Your task to perform on an android device: add a contact Image 0: 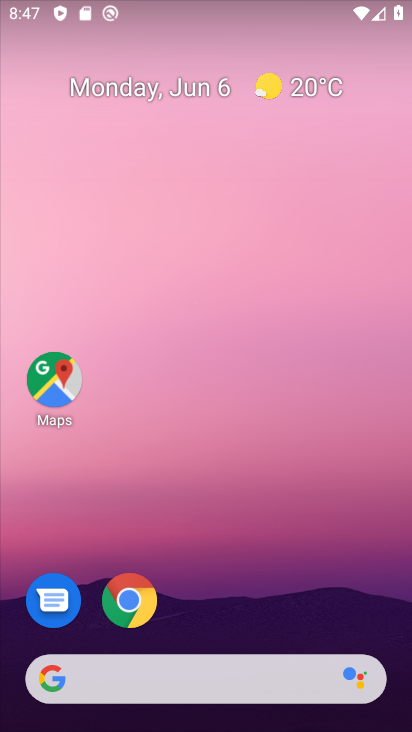
Step 0: drag from (26, 626) to (210, 229)
Your task to perform on an android device: add a contact Image 1: 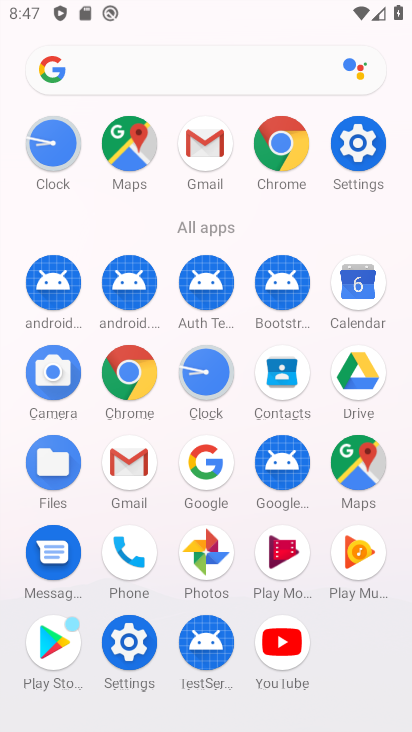
Step 1: click (140, 549)
Your task to perform on an android device: add a contact Image 2: 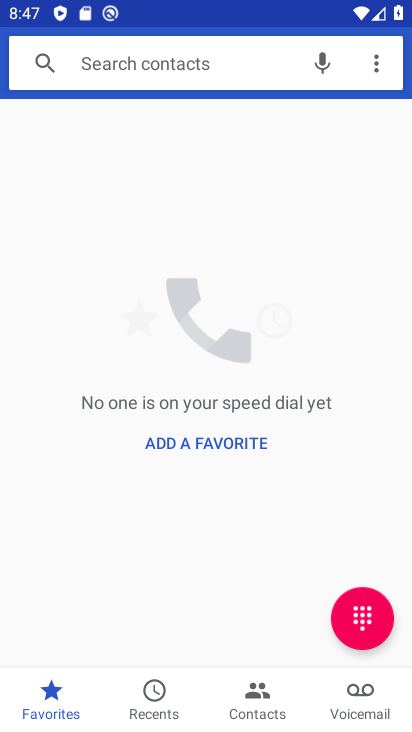
Step 2: click (243, 711)
Your task to perform on an android device: add a contact Image 3: 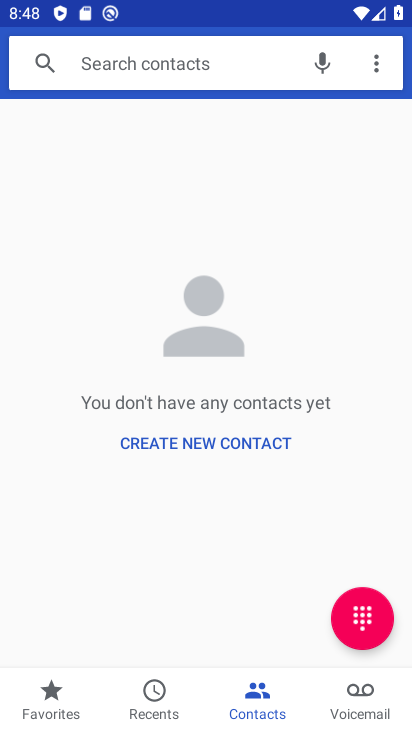
Step 3: click (192, 448)
Your task to perform on an android device: add a contact Image 4: 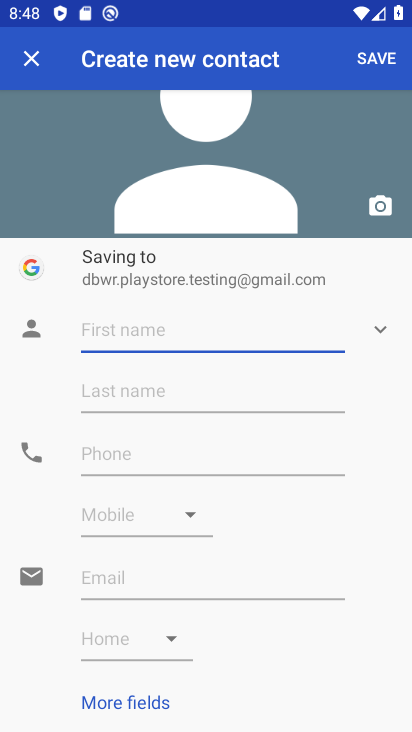
Step 4: click (175, 322)
Your task to perform on an android device: add a contact Image 5: 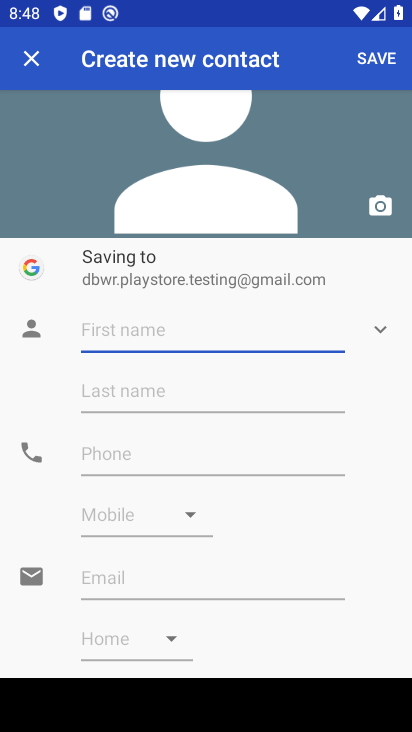
Step 5: type "jvbbjb"
Your task to perform on an android device: add a contact Image 6: 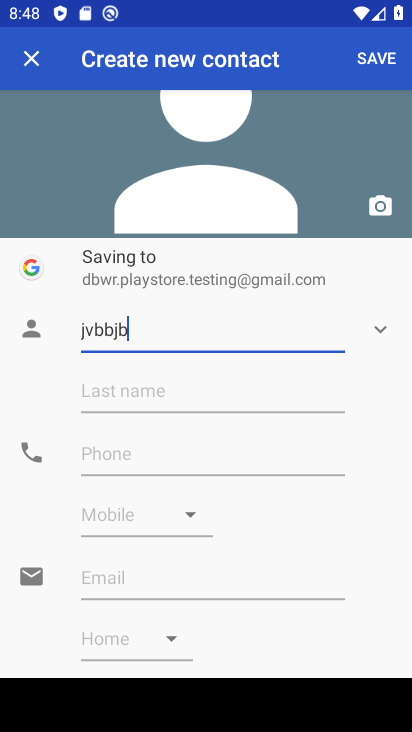
Step 6: type ""
Your task to perform on an android device: add a contact Image 7: 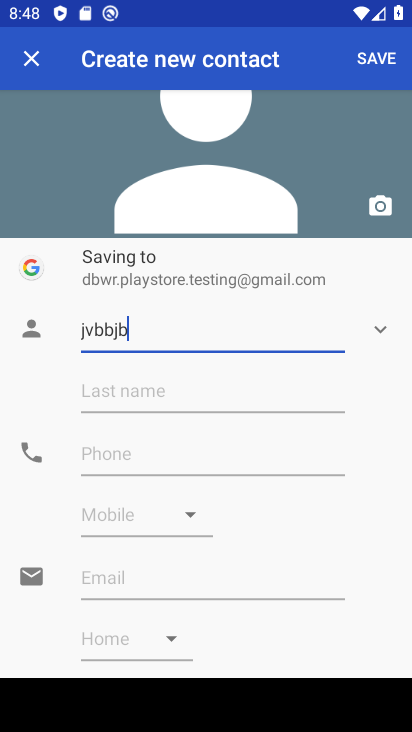
Step 7: click (377, 57)
Your task to perform on an android device: add a contact Image 8: 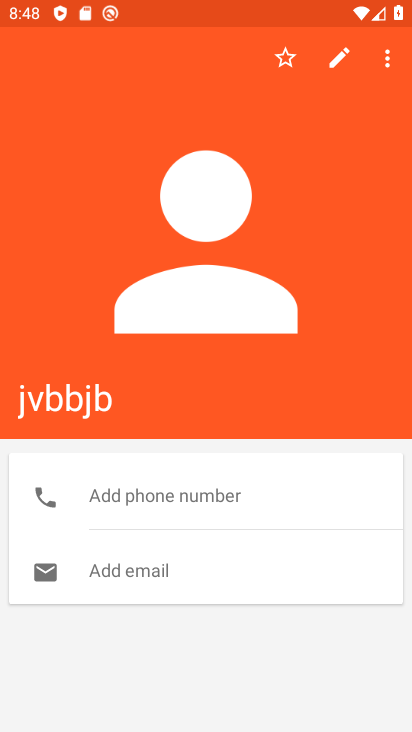
Step 8: task complete